Your task to perform on an android device: Search for "razer deathadder" on costco, select the first entry, and add it to the cart. Image 0: 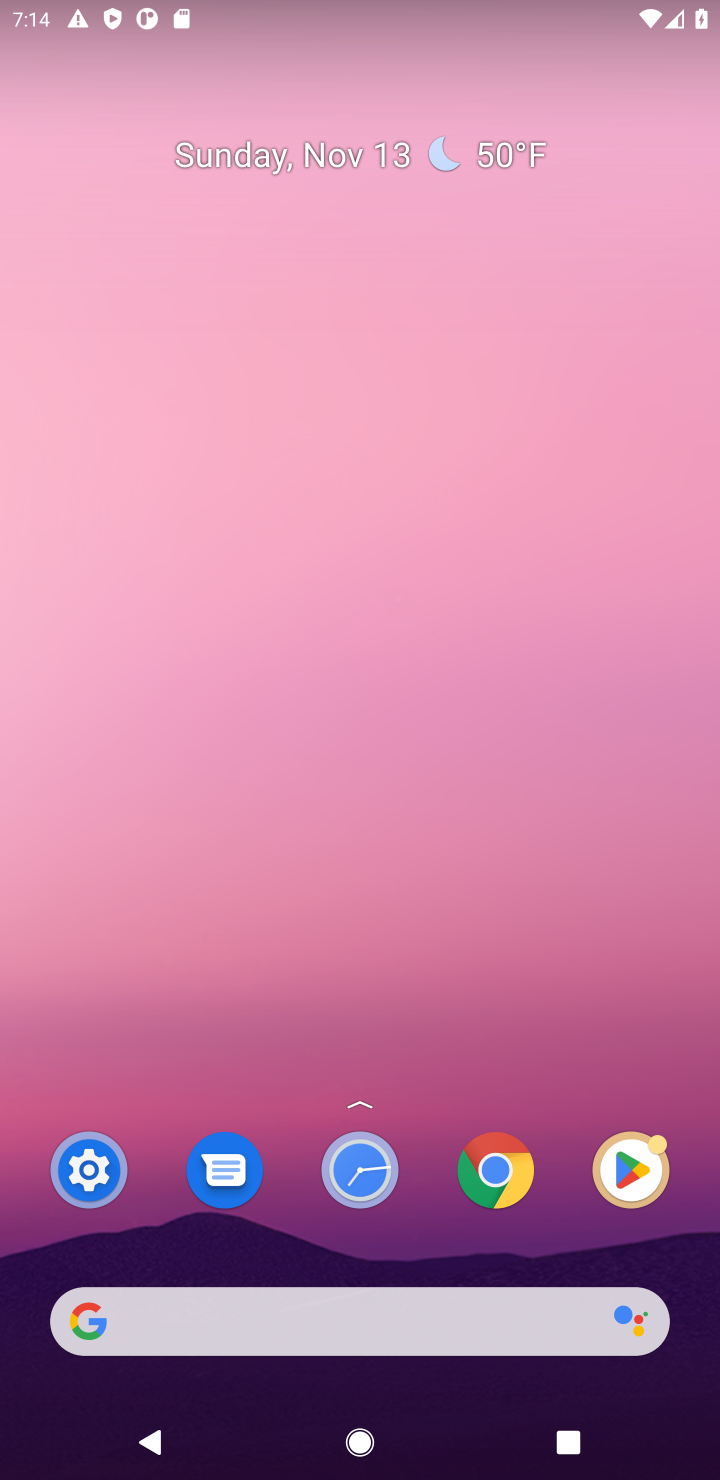
Step 0: click (228, 1314)
Your task to perform on an android device: Search for "razer deathadder" on costco, select the first entry, and add it to the cart. Image 1: 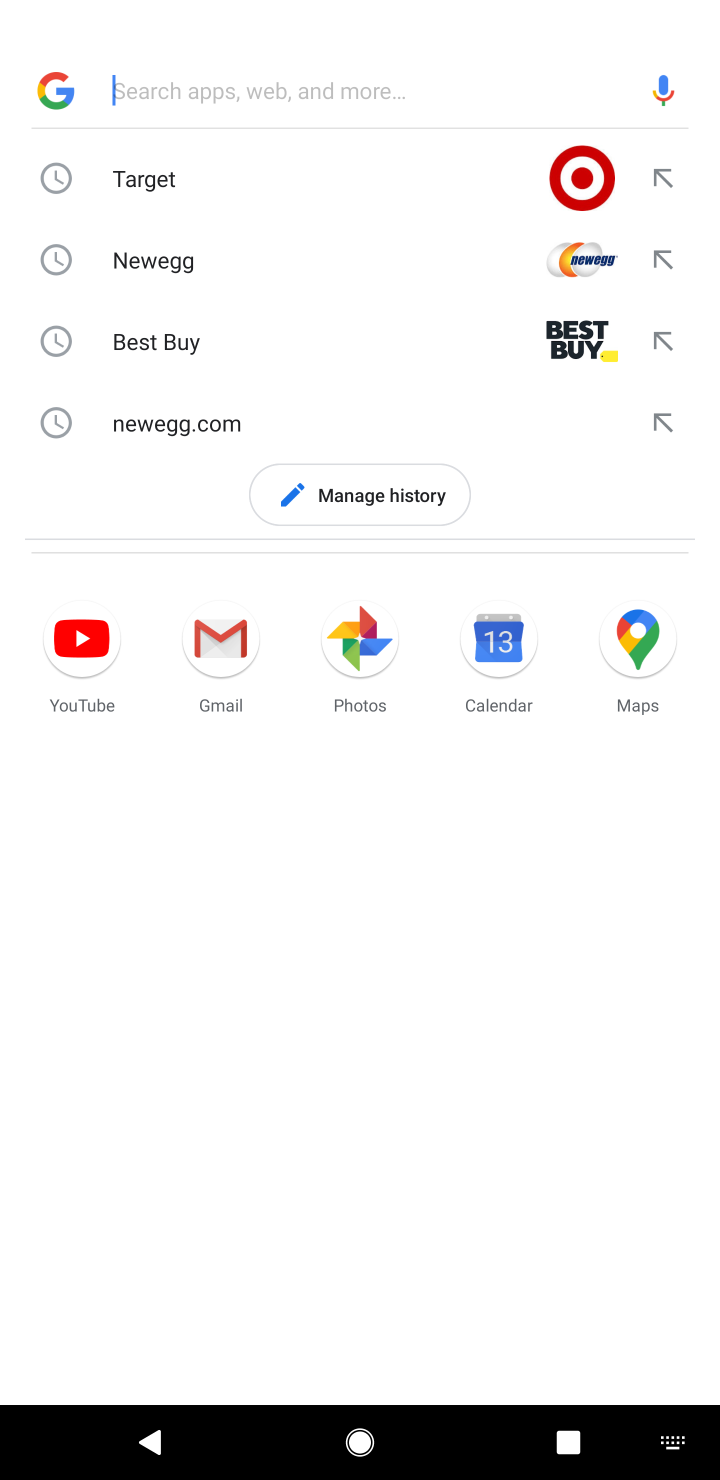
Step 1: type "costco"
Your task to perform on an android device: Search for "razer deathadder" on costco, select the first entry, and add it to the cart. Image 2: 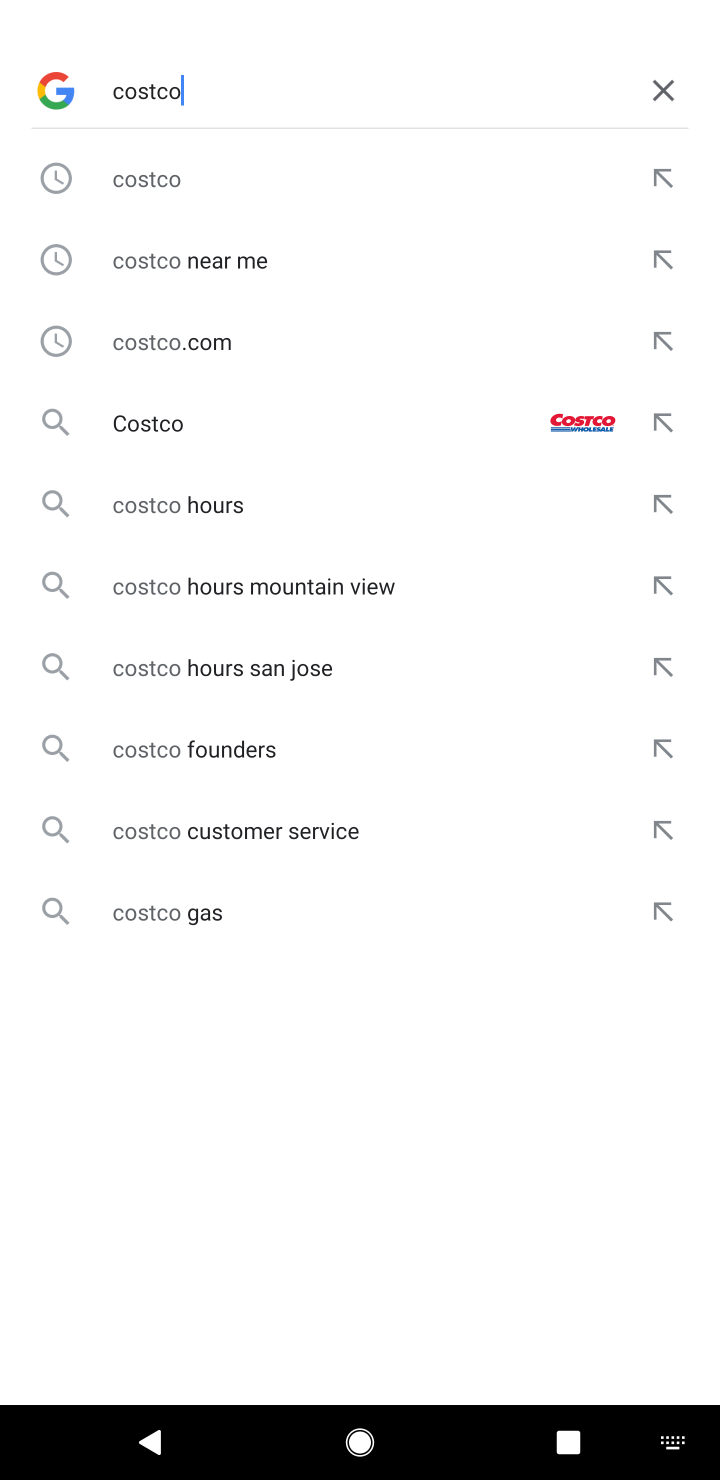
Step 2: click (230, 427)
Your task to perform on an android device: Search for "razer deathadder" on costco, select the first entry, and add it to the cart. Image 3: 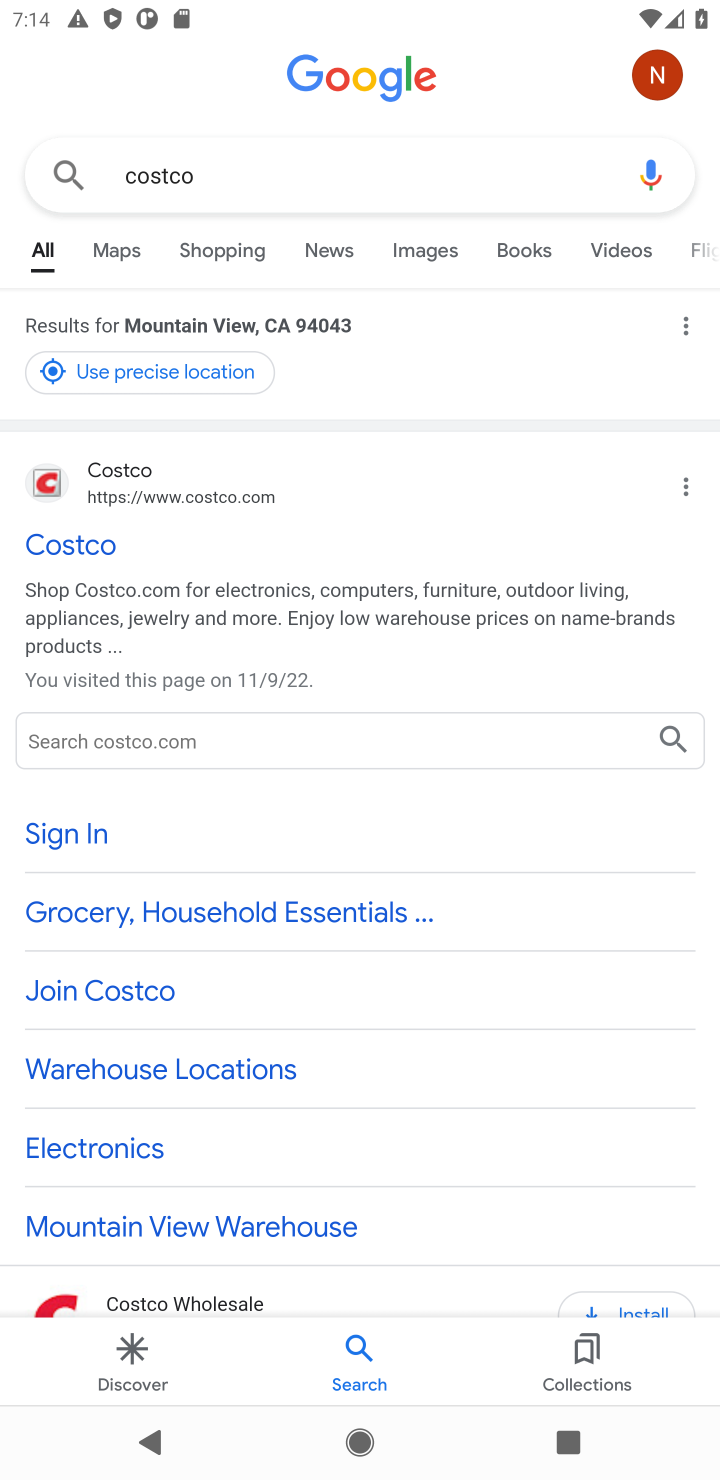
Step 3: click (93, 556)
Your task to perform on an android device: Search for "razer deathadder" on costco, select the first entry, and add it to the cart. Image 4: 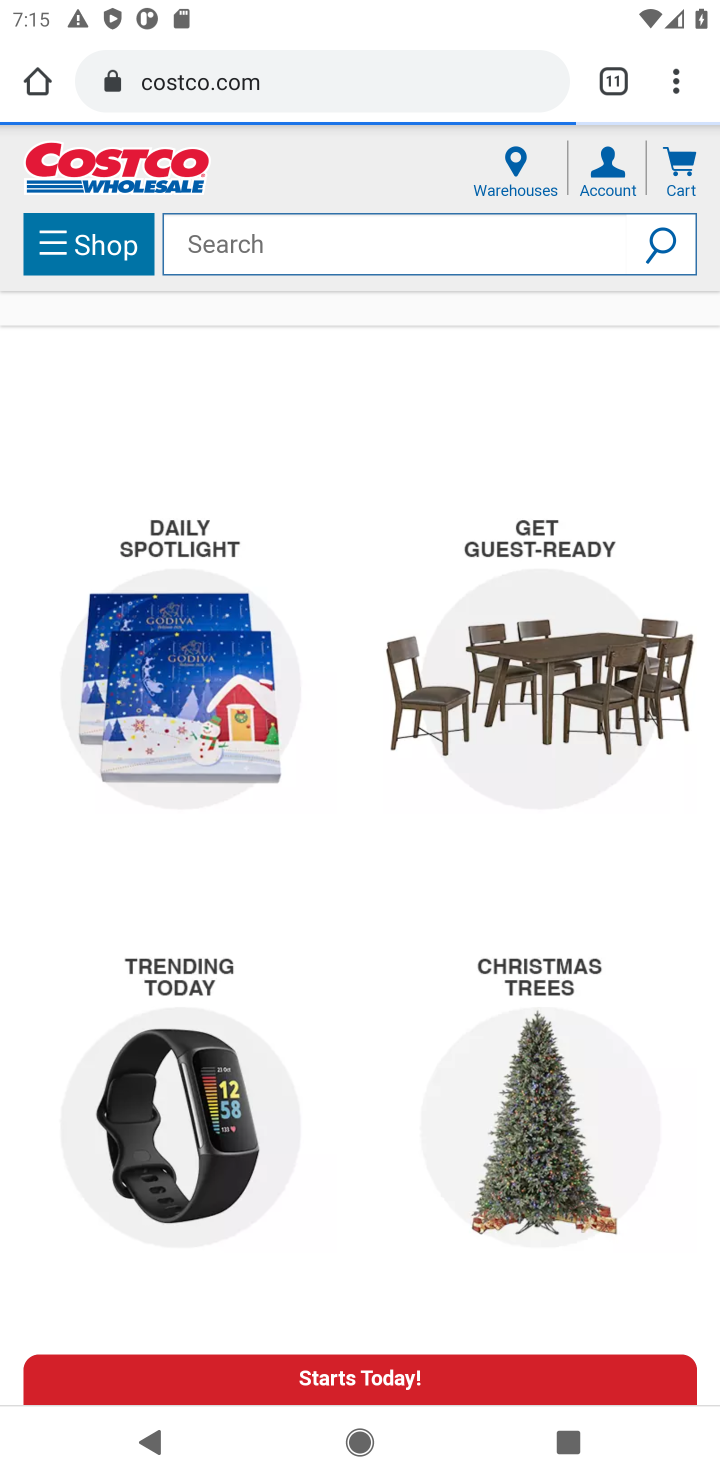
Step 4: task complete